Your task to perform on an android device: turn on the 24-hour format for clock Image 0: 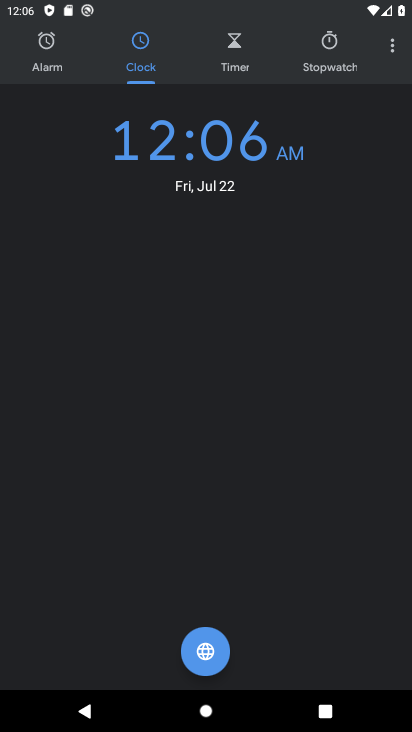
Step 0: click (396, 43)
Your task to perform on an android device: turn on the 24-hour format for clock Image 1: 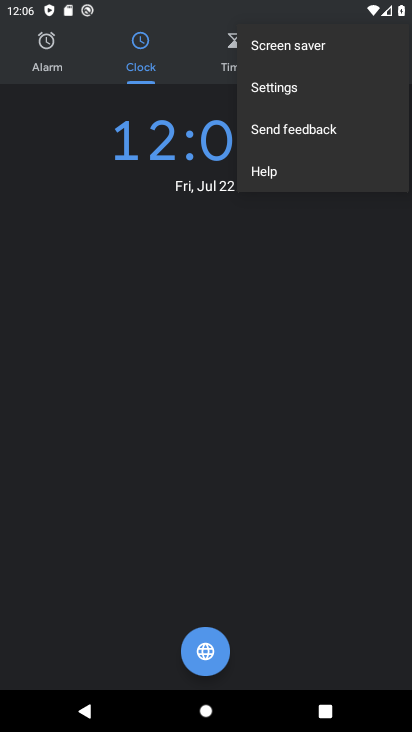
Step 1: click (274, 91)
Your task to perform on an android device: turn on the 24-hour format for clock Image 2: 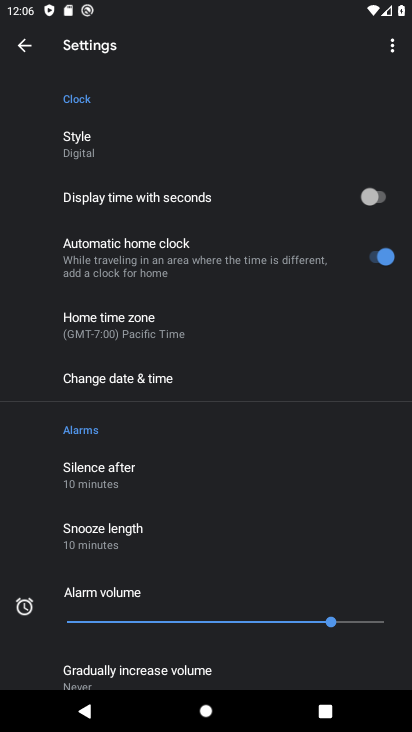
Step 2: click (123, 377)
Your task to perform on an android device: turn on the 24-hour format for clock Image 3: 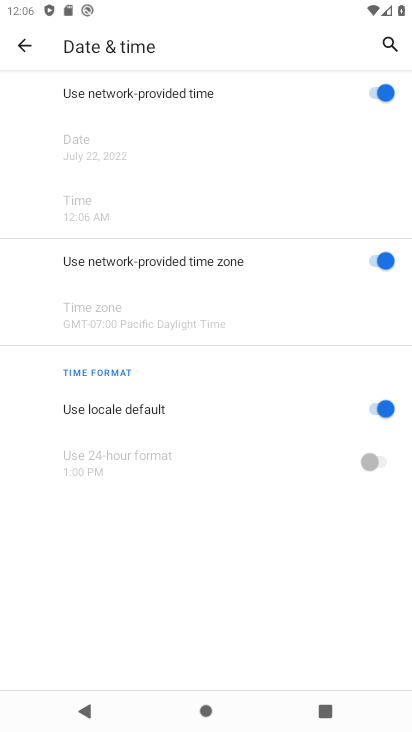
Step 3: click (386, 404)
Your task to perform on an android device: turn on the 24-hour format for clock Image 4: 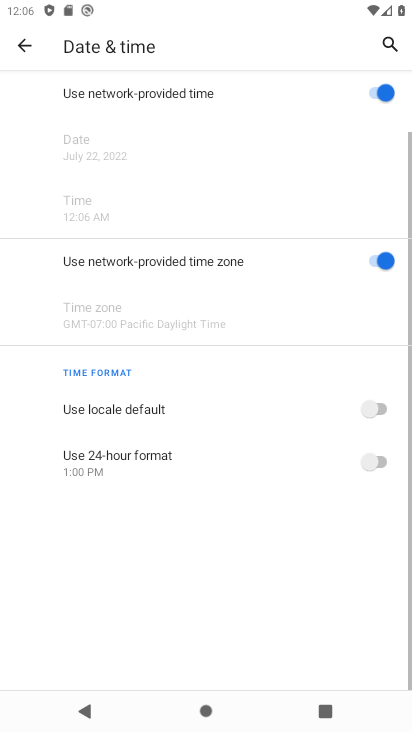
Step 4: click (371, 456)
Your task to perform on an android device: turn on the 24-hour format for clock Image 5: 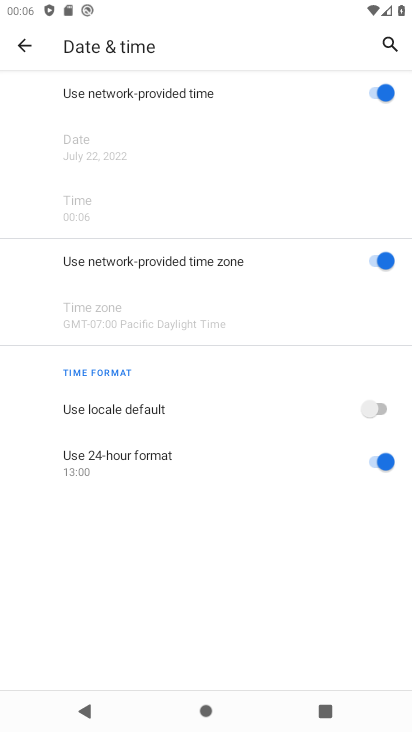
Step 5: task complete